Your task to perform on an android device: Open Chrome and go to settings Image 0: 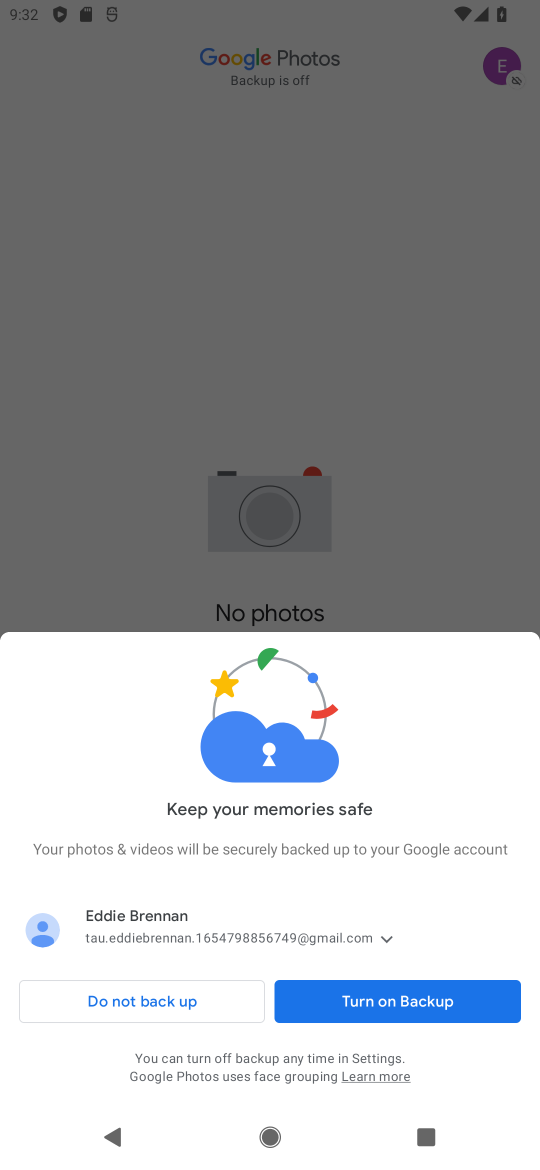
Step 0: press home button
Your task to perform on an android device: Open Chrome and go to settings Image 1: 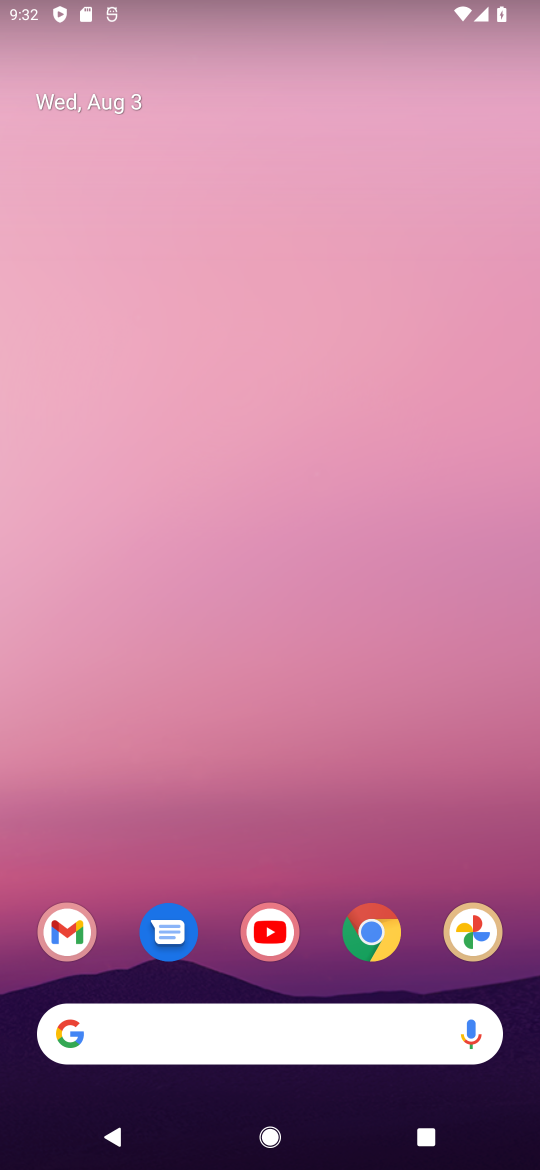
Step 1: click (372, 949)
Your task to perform on an android device: Open Chrome and go to settings Image 2: 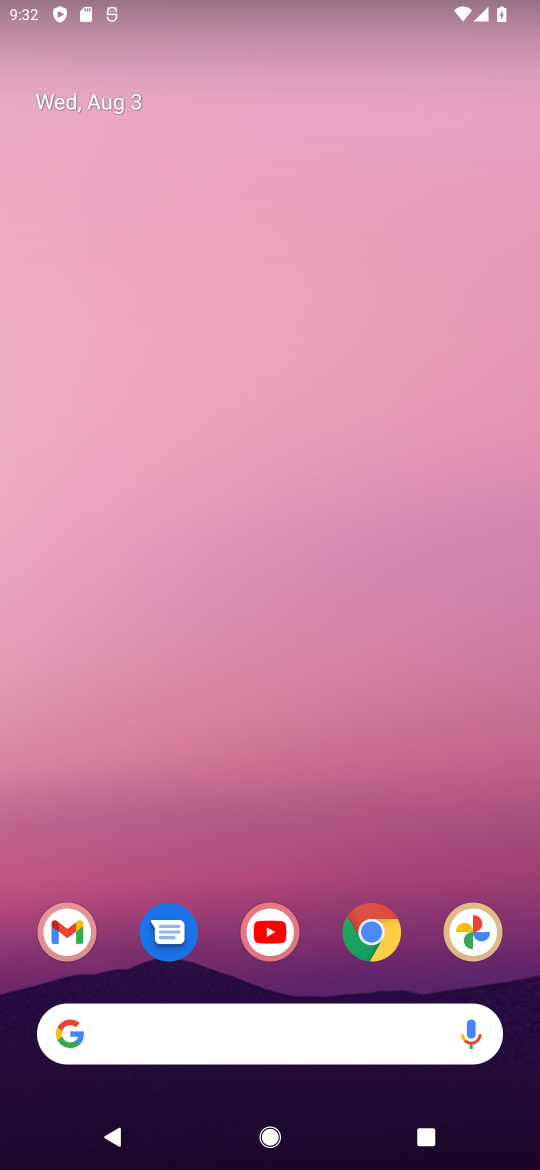
Step 2: click (371, 952)
Your task to perform on an android device: Open Chrome and go to settings Image 3: 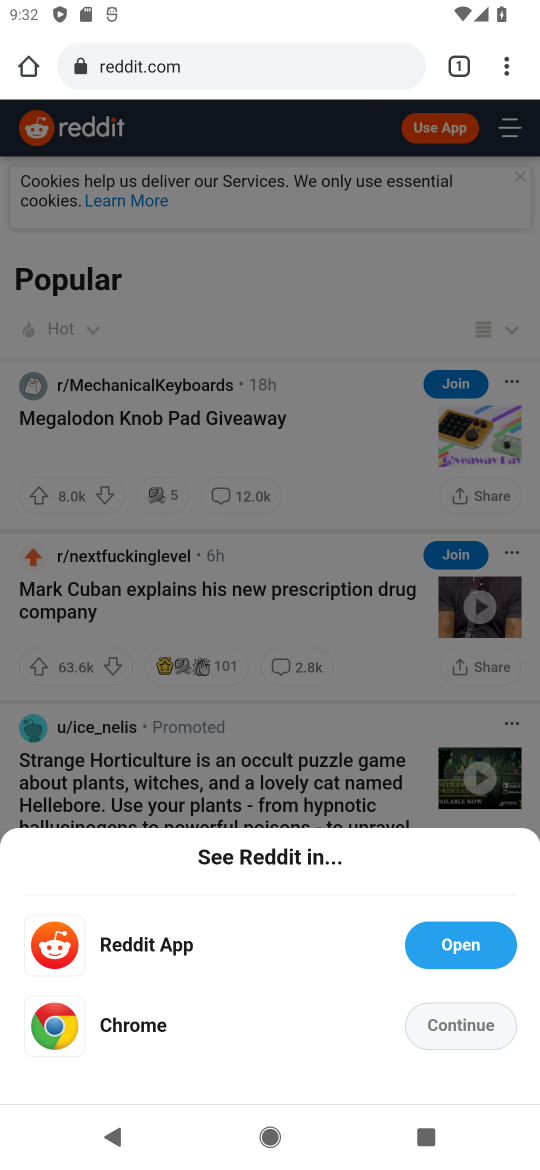
Step 3: click (520, 94)
Your task to perform on an android device: Open Chrome and go to settings Image 4: 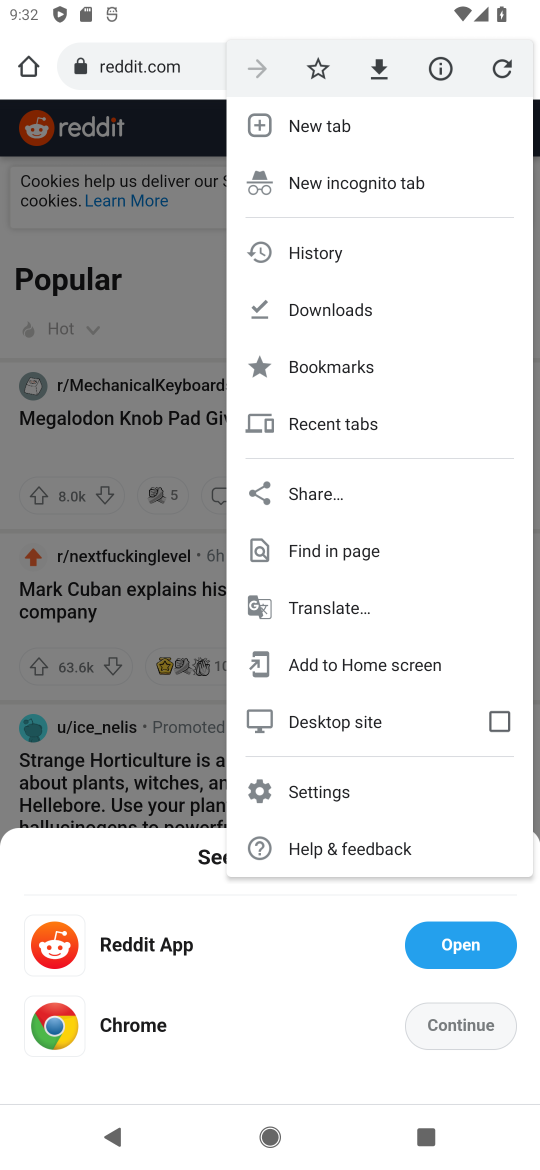
Step 4: click (358, 801)
Your task to perform on an android device: Open Chrome and go to settings Image 5: 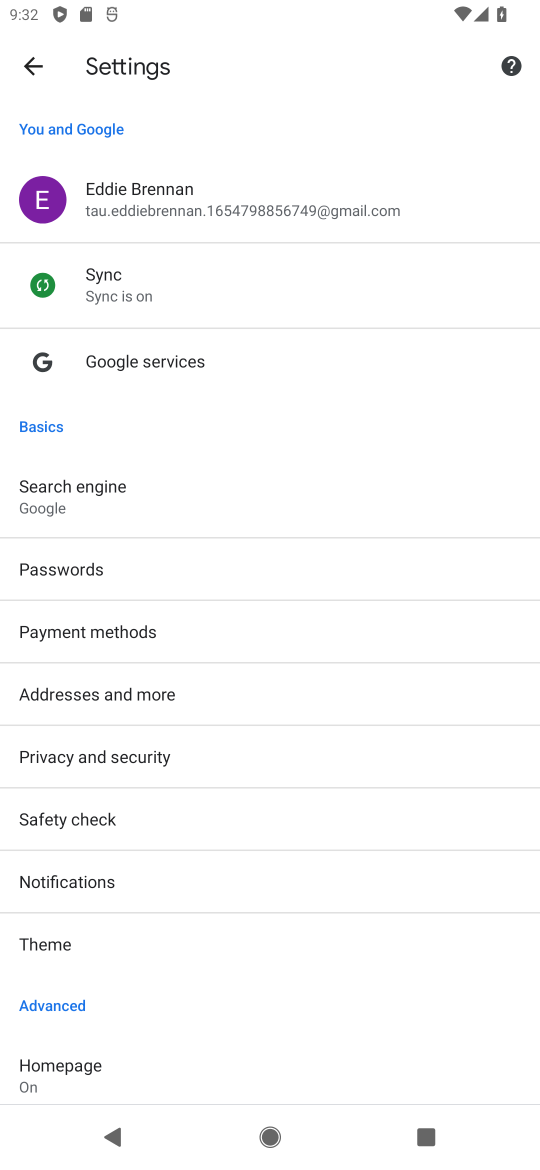
Step 5: task complete